Your task to perform on an android device: Turn off the flashlight Image 0: 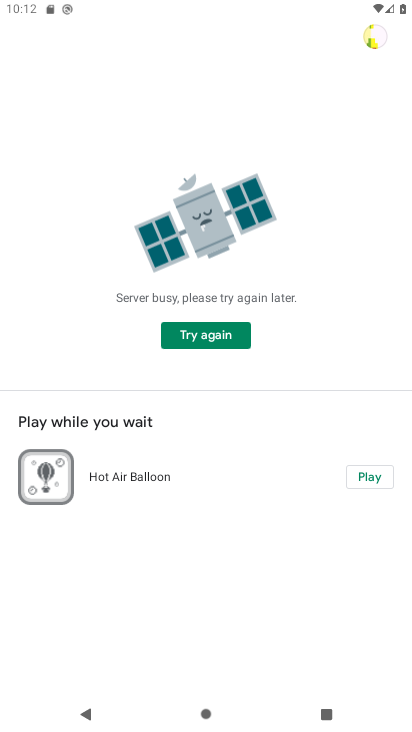
Step 0: press home button
Your task to perform on an android device: Turn off the flashlight Image 1: 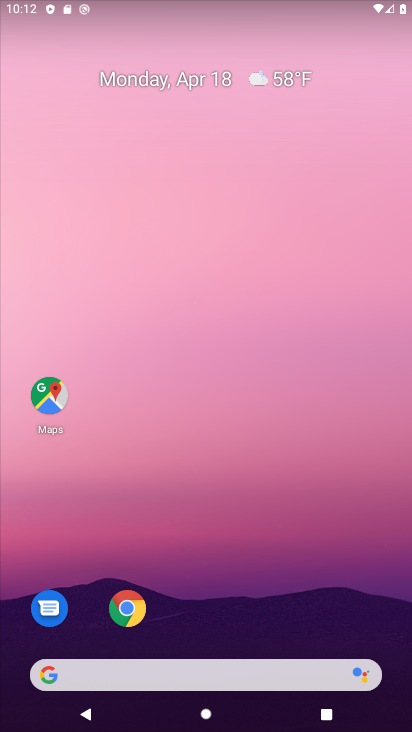
Step 1: drag from (243, 7) to (284, 701)
Your task to perform on an android device: Turn off the flashlight Image 2: 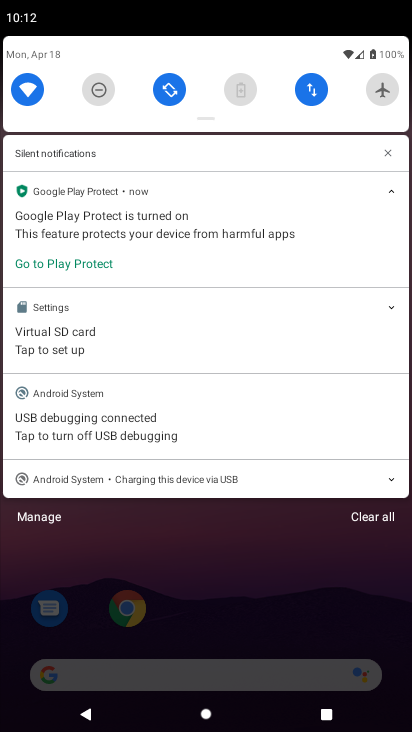
Step 2: drag from (201, 102) to (273, 720)
Your task to perform on an android device: Turn off the flashlight Image 3: 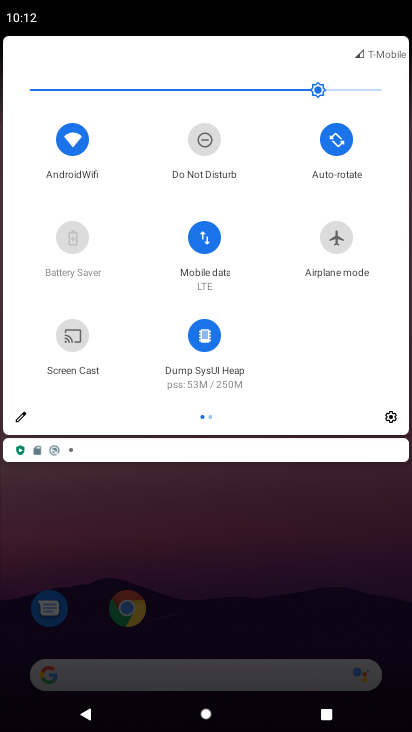
Step 3: drag from (385, 354) to (0, 380)
Your task to perform on an android device: Turn off the flashlight Image 4: 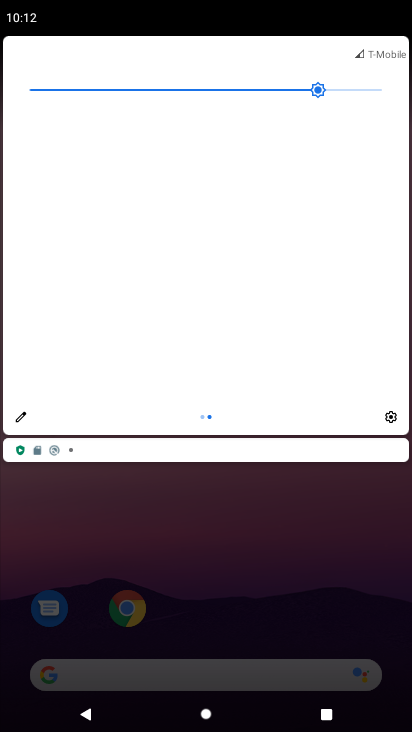
Step 4: click (20, 423)
Your task to perform on an android device: Turn off the flashlight Image 5: 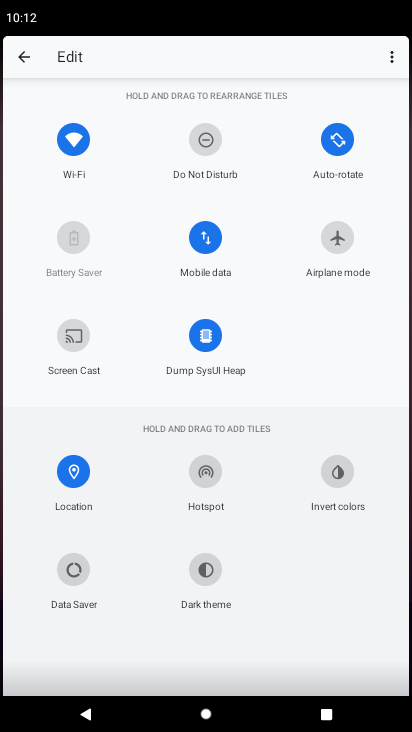
Step 5: task complete